Your task to perform on an android device: turn pop-ups on in chrome Image 0: 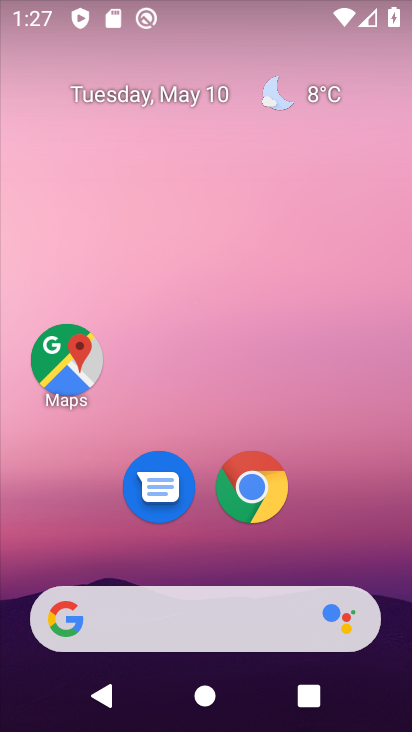
Step 0: click (261, 487)
Your task to perform on an android device: turn pop-ups on in chrome Image 1: 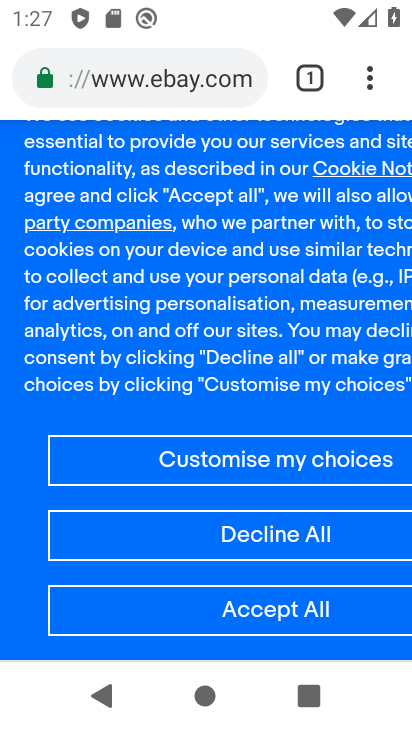
Step 1: drag from (364, 74) to (204, 546)
Your task to perform on an android device: turn pop-ups on in chrome Image 2: 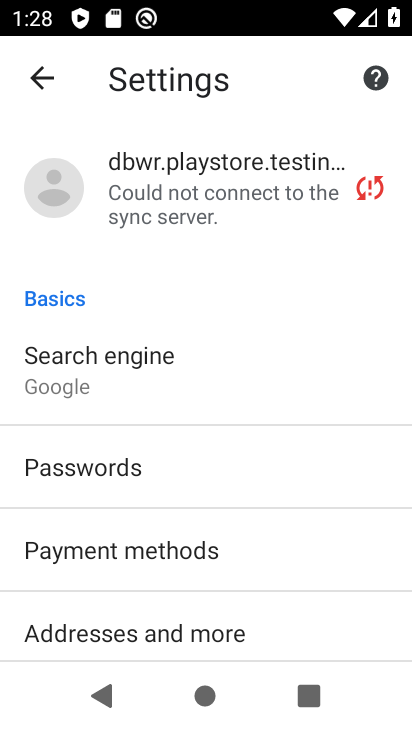
Step 2: drag from (184, 557) to (241, 92)
Your task to perform on an android device: turn pop-ups on in chrome Image 3: 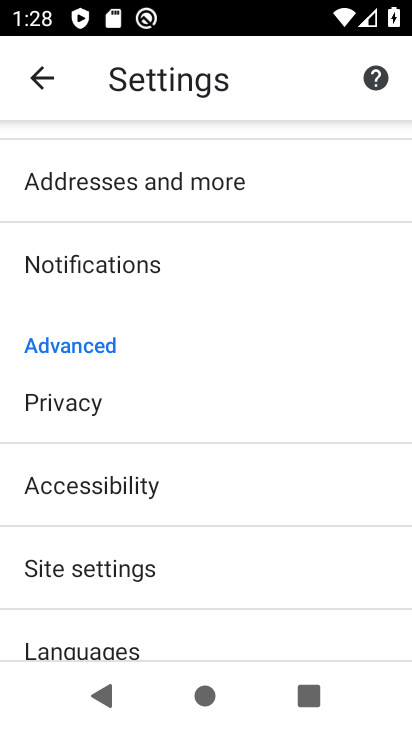
Step 3: drag from (222, 498) to (257, 244)
Your task to perform on an android device: turn pop-ups on in chrome Image 4: 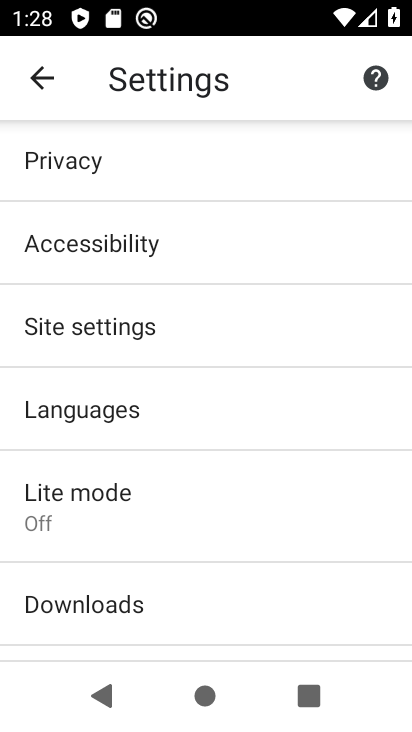
Step 4: click (185, 337)
Your task to perform on an android device: turn pop-ups on in chrome Image 5: 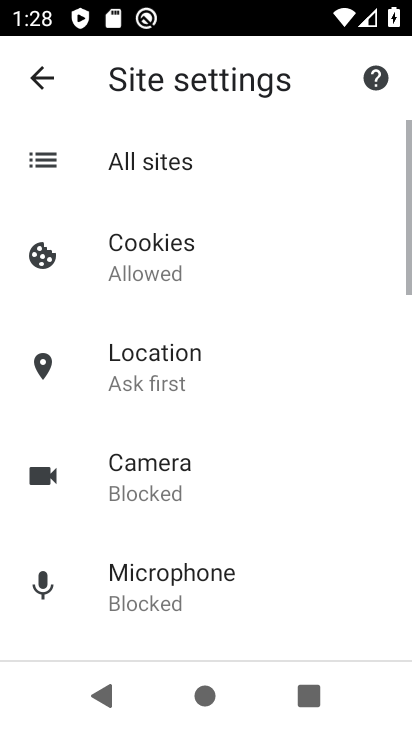
Step 5: drag from (311, 558) to (300, 157)
Your task to perform on an android device: turn pop-ups on in chrome Image 6: 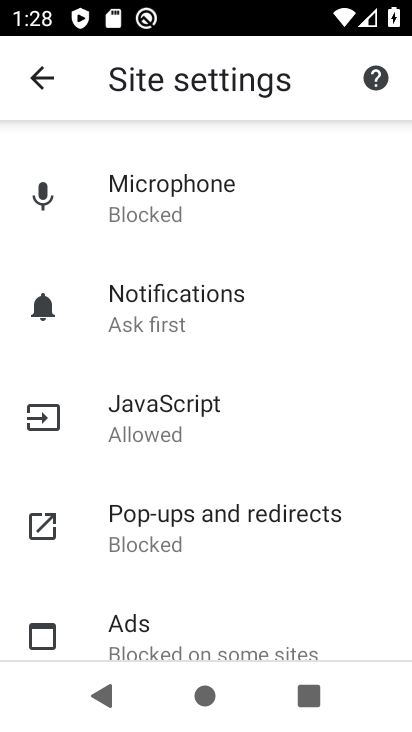
Step 6: click (275, 517)
Your task to perform on an android device: turn pop-ups on in chrome Image 7: 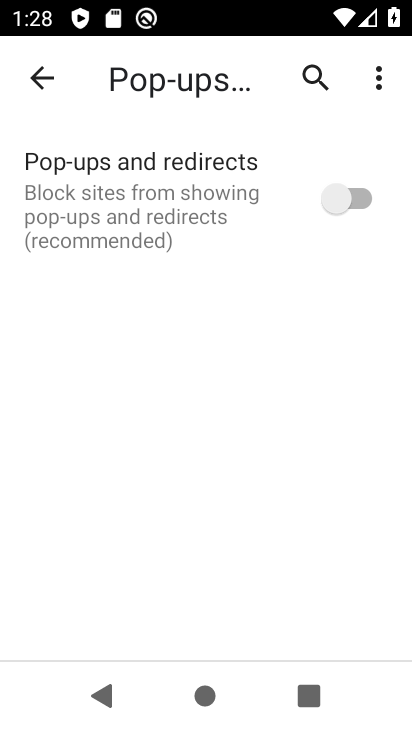
Step 7: click (359, 191)
Your task to perform on an android device: turn pop-ups on in chrome Image 8: 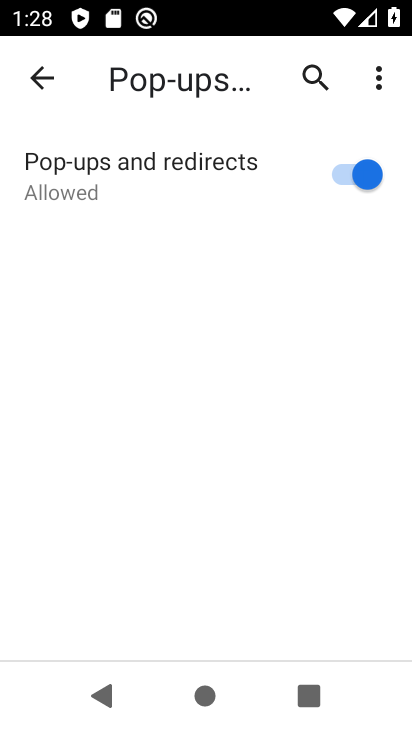
Step 8: task complete